Your task to perform on an android device: open a bookmark in the chrome app Image 0: 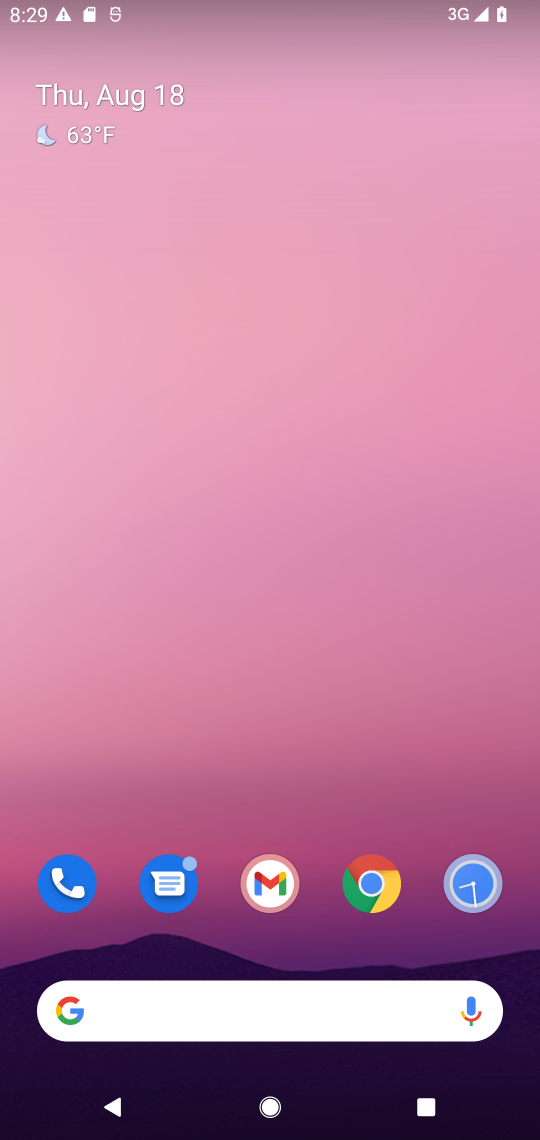
Step 0: click (382, 902)
Your task to perform on an android device: open a bookmark in the chrome app Image 1: 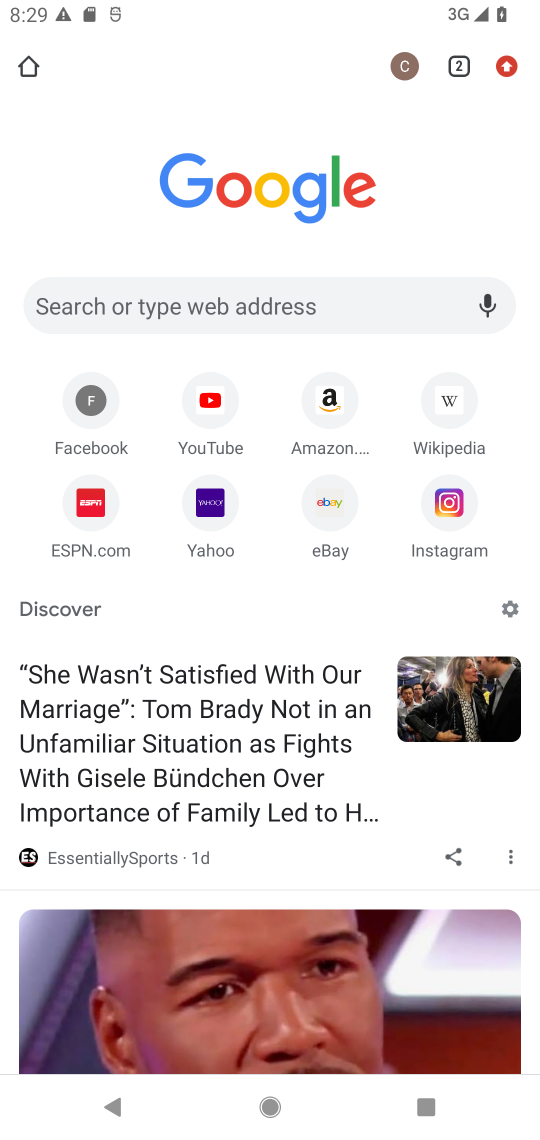
Step 1: click (500, 72)
Your task to perform on an android device: open a bookmark in the chrome app Image 2: 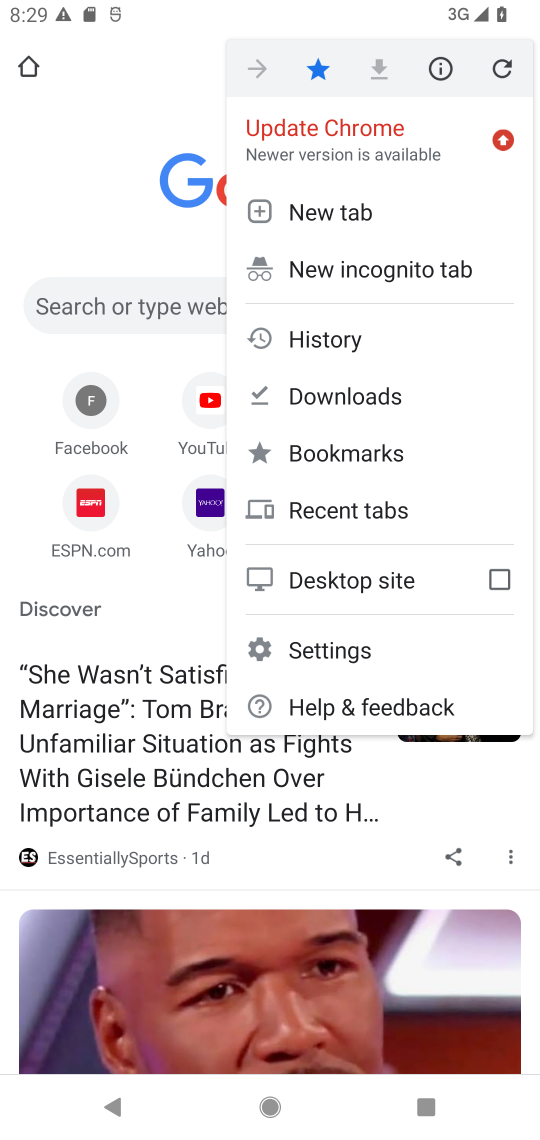
Step 2: click (325, 440)
Your task to perform on an android device: open a bookmark in the chrome app Image 3: 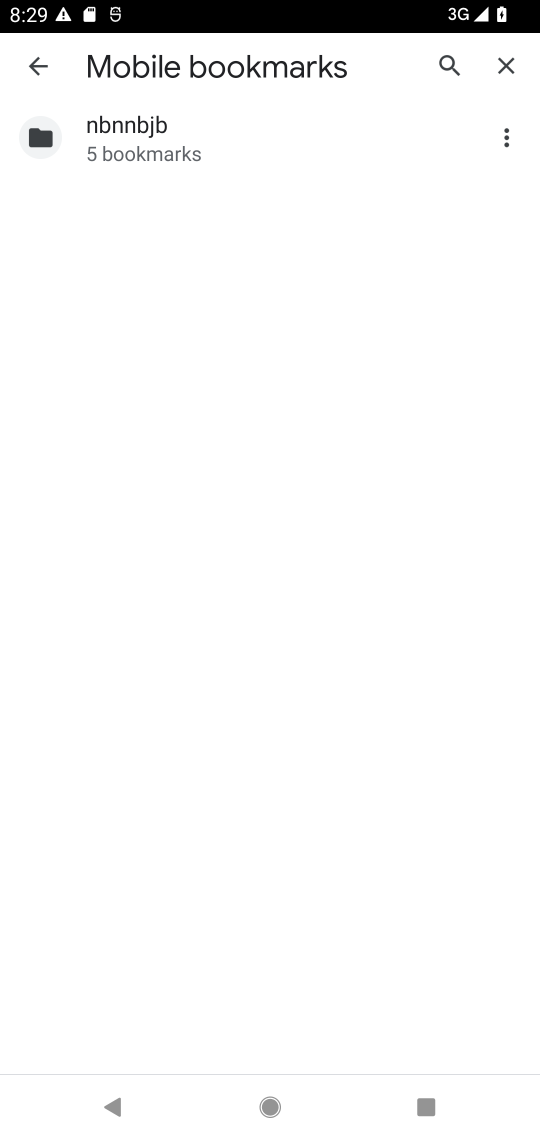
Step 3: task complete